Your task to perform on an android device: open a new tab in the chrome app Image 0: 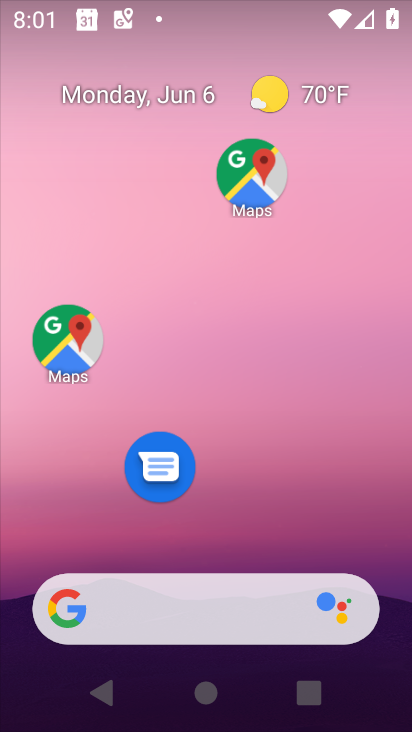
Step 0: drag from (305, 704) to (213, 272)
Your task to perform on an android device: open a new tab in the chrome app Image 1: 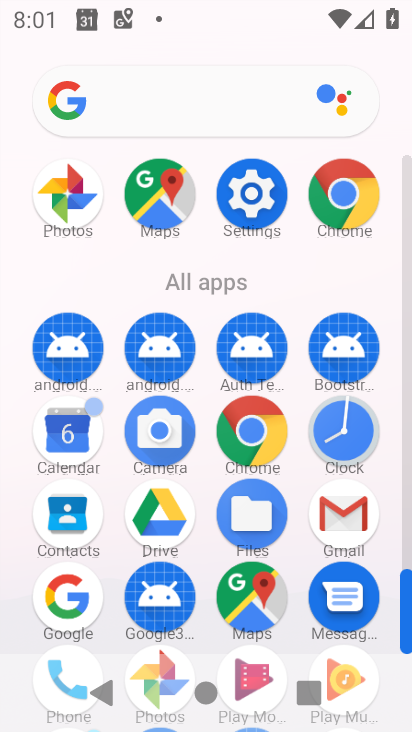
Step 1: click (334, 192)
Your task to perform on an android device: open a new tab in the chrome app Image 2: 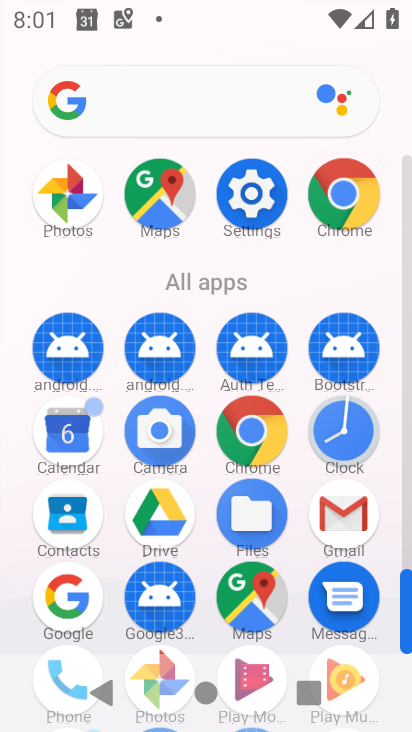
Step 2: click (334, 192)
Your task to perform on an android device: open a new tab in the chrome app Image 3: 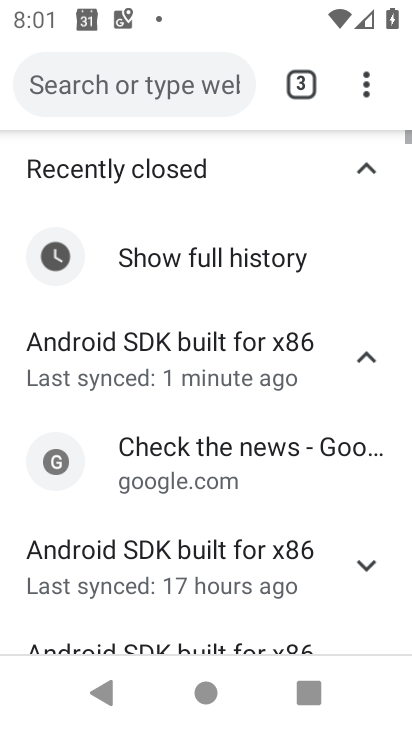
Step 3: drag from (360, 88) to (53, 166)
Your task to perform on an android device: open a new tab in the chrome app Image 4: 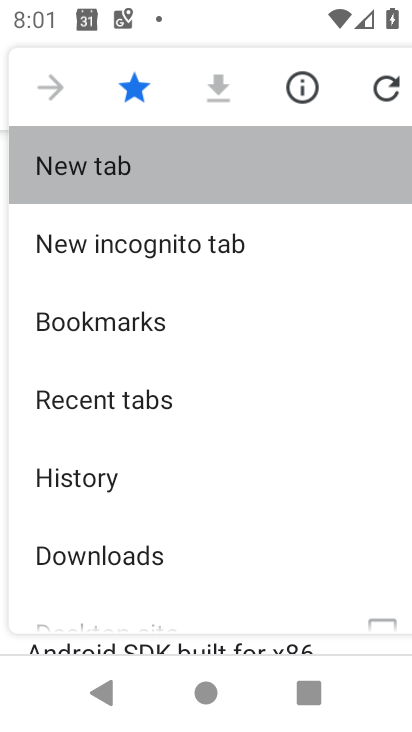
Step 4: click (53, 164)
Your task to perform on an android device: open a new tab in the chrome app Image 5: 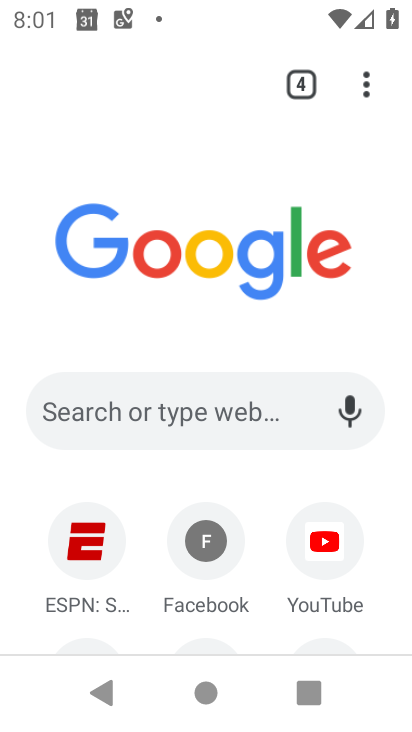
Step 5: task complete